Your task to perform on an android device: visit the assistant section in the google photos Image 0: 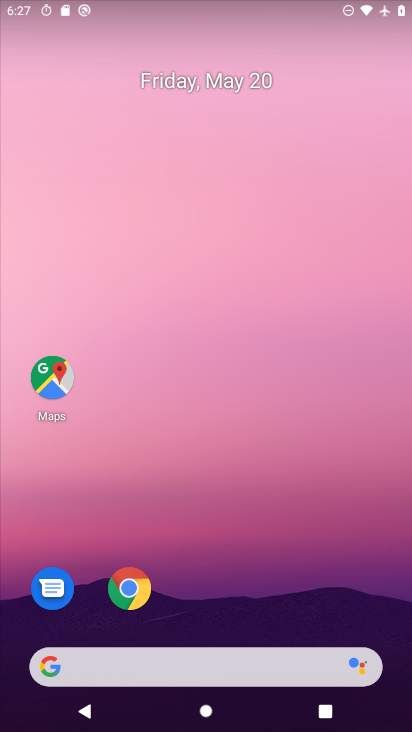
Step 0: drag from (191, 613) to (215, 289)
Your task to perform on an android device: visit the assistant section in the google photos Image 1: 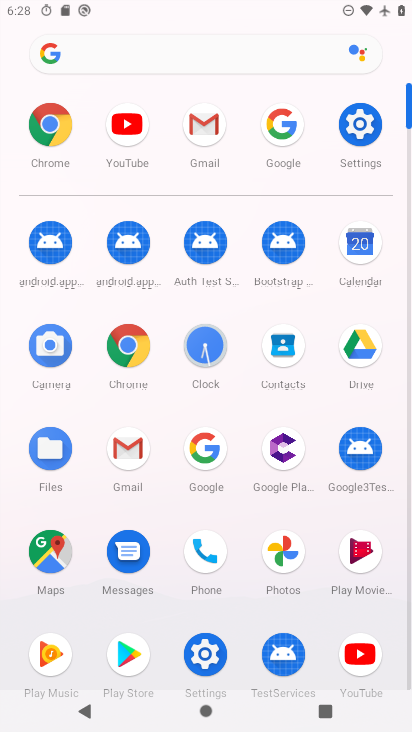
Step 1: click (281, 554)
Your task to perform on an android device: visit the assistant section in the google photos Image 2: 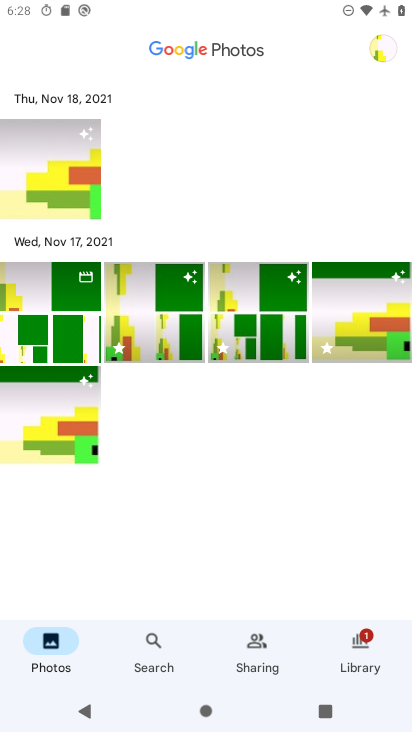
Step 2: click (358, 657)
Your task to perform on an android device: visit the assistant section in the google photos Image 3: 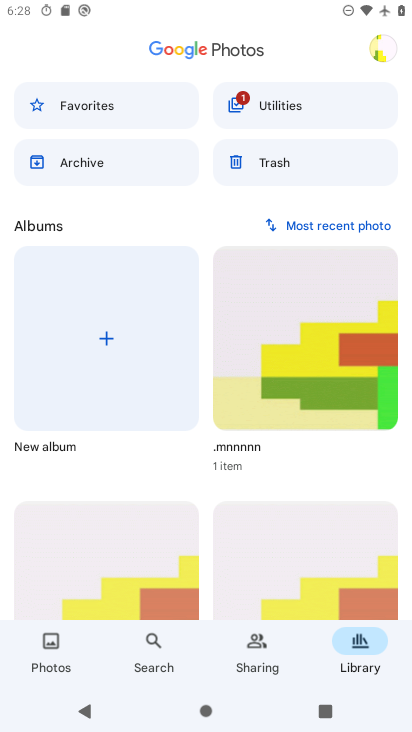
Step 3: task complete